Your task to perform on an android device: Open Google Maps and go to "Timeline" Image 0: 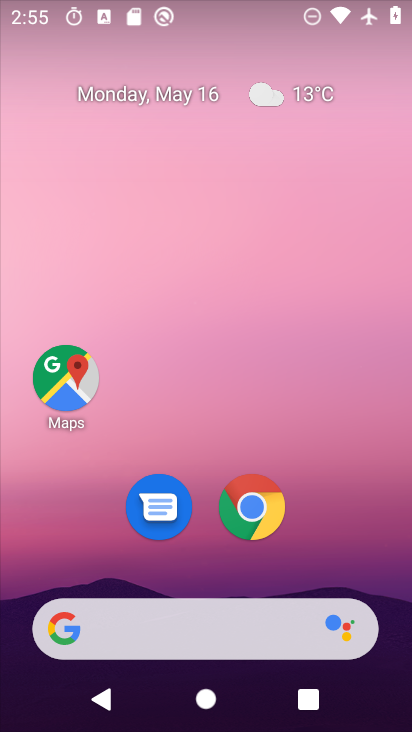
Step 0: drag from (203, 586) to (238, 237)
Your task to perform on an android device: Open Google Maps and go to "Timeline" Image 1: 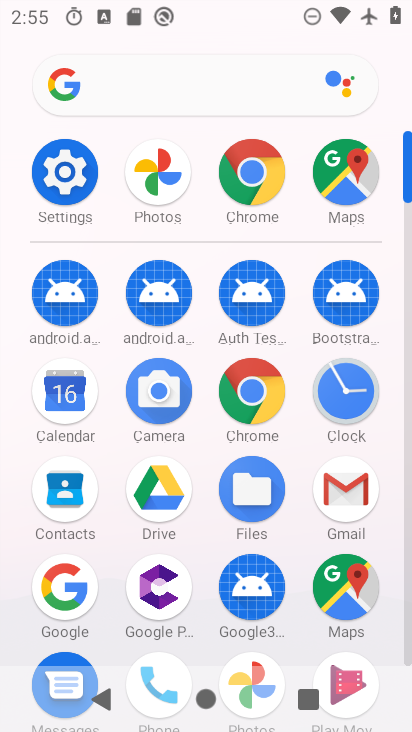
Step 1: click (340, 591)
Your task to perform on an android device: Open Google Maps and go to "Timeline" Image 2: 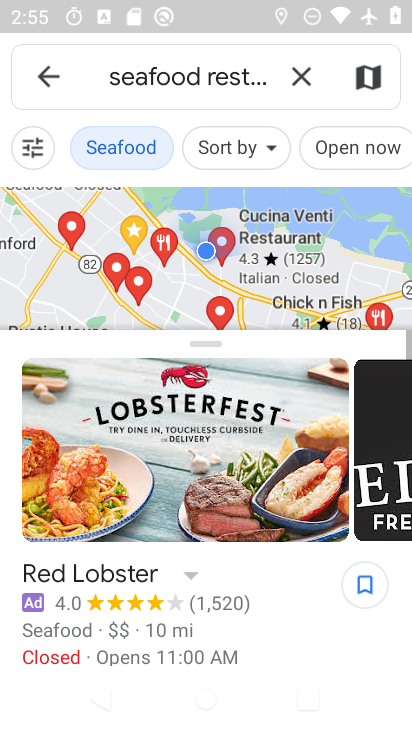
Step 2: press back button
Your task to perform on an android device: Open Google Maps and go to "Timeline" Image 3: 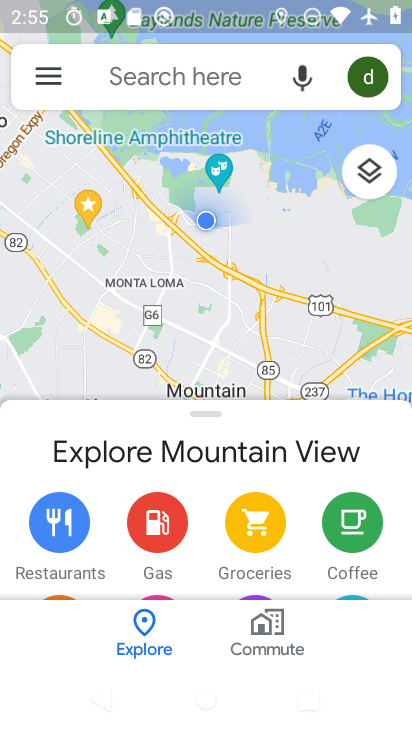
Step 3: click (66, 86)
Your task to perform on an android device: Open Google Maps and go to "Timeline" Image 4: 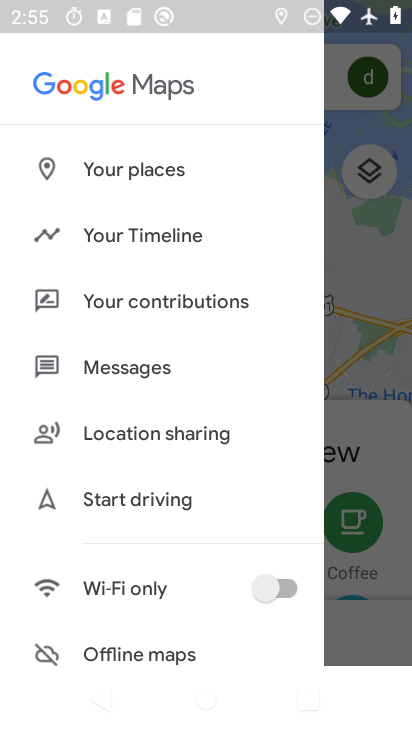
Step 4: click (127, 239)
Your task to perform on an android device: Open Google Maps and go to "Timeline" Image 5: 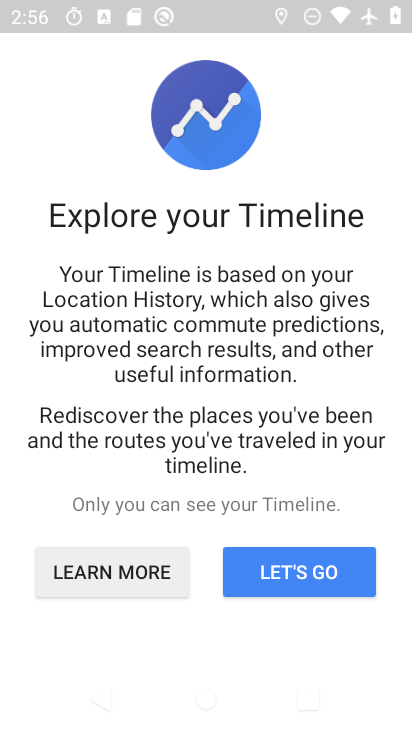
Step 5: click (299, 588)
Your task to perform on an android device: Open Google Maps and go to "Timeline" Image 6: 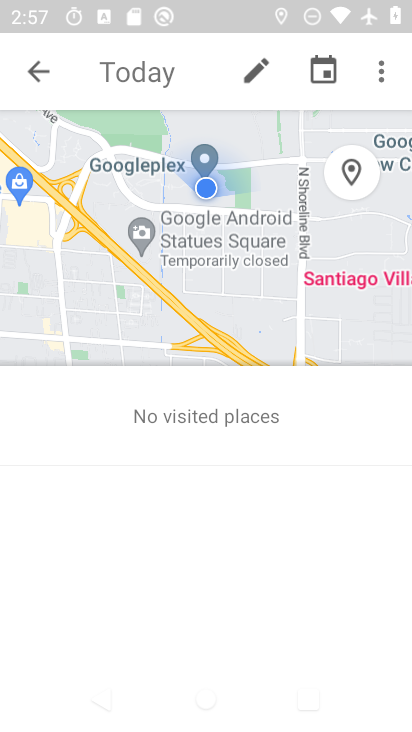
Step 6: task complete